Your task to perform on an android device: How much does a 2x4x8 board cost at Lowes? Image 0: 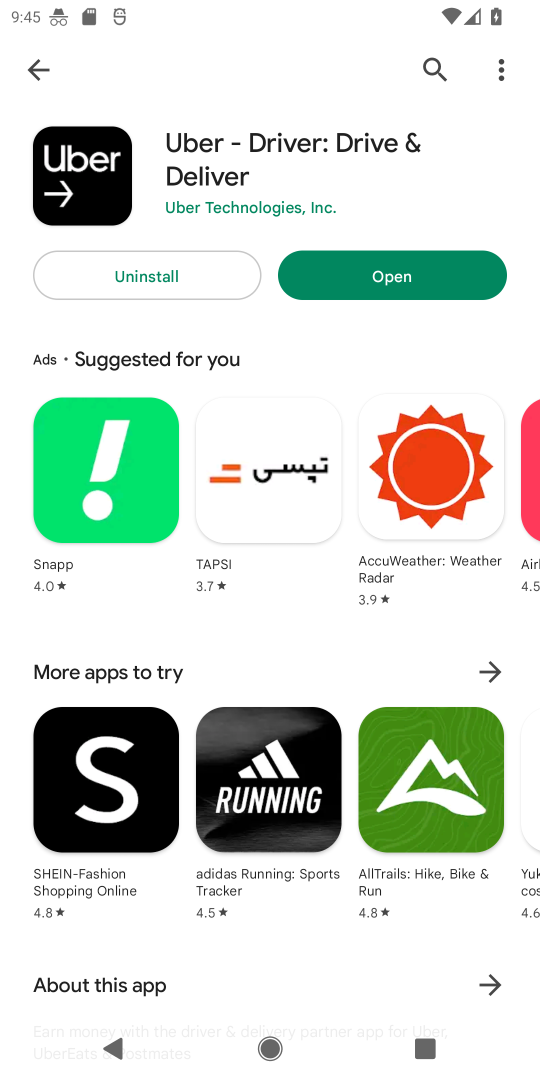
Step 0: press home button
Your task to perform on an android device: How much does a 2x4x8 board cost at Lowes? Image 1: 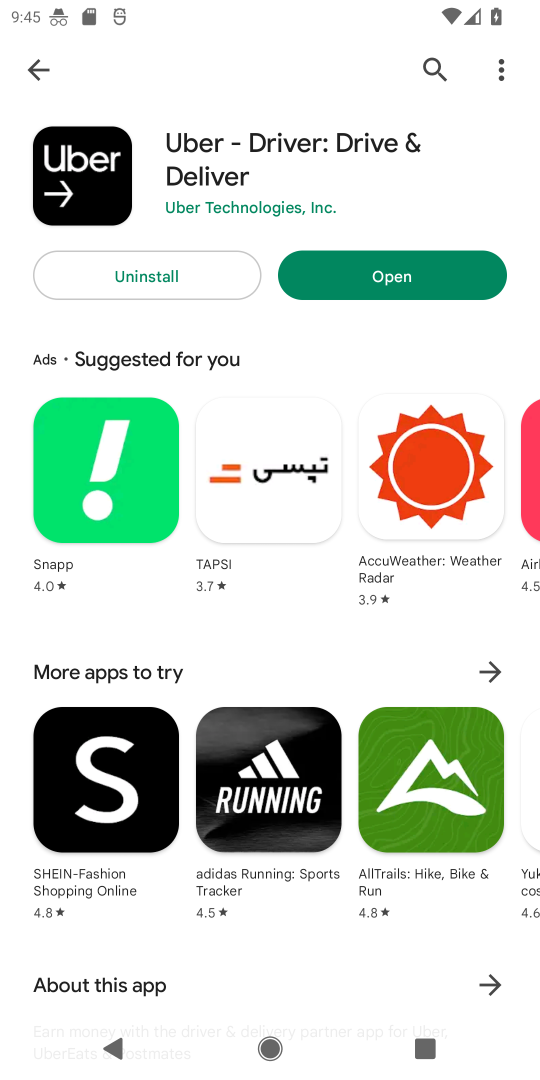
Step 1: press home button
Your task to perform on an android device: How much does a 2x4x8 board cost at Lowes? Image 2: 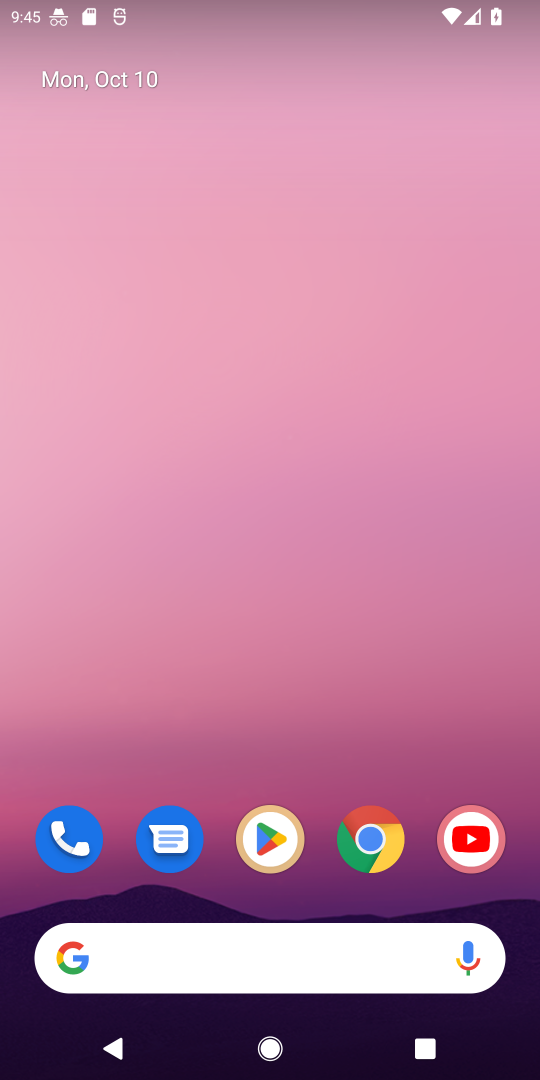
Step 2: drag from (325, 906) to (300, 66)
Your task to perform on an android device: How much does a 2x4x8 board cost at Lowes? Image 3: 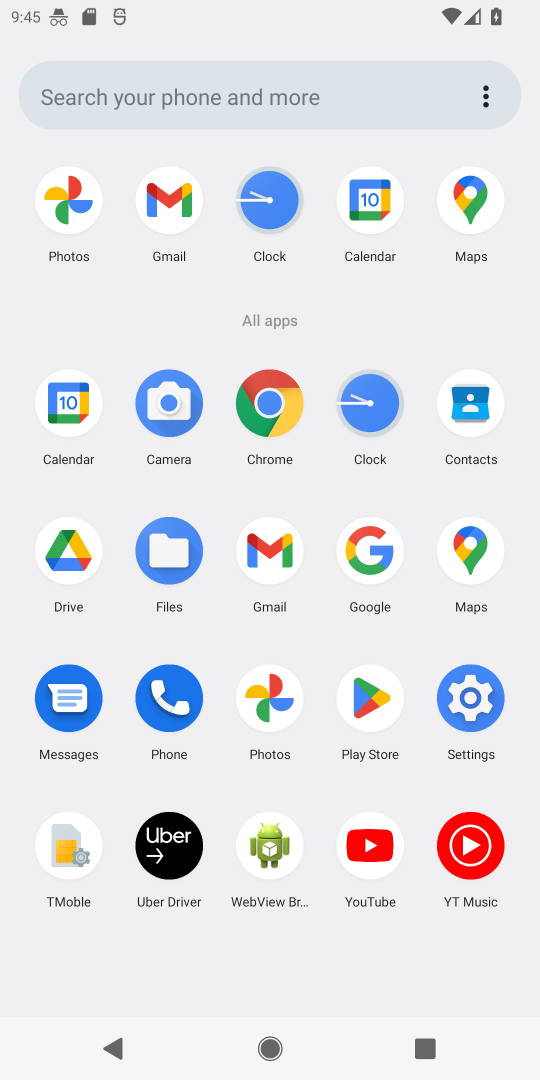
Step 3: click (276, 406)
Your task to perform on an android device: How much does a 2x4x8 board cost at Lowes? Image 4: 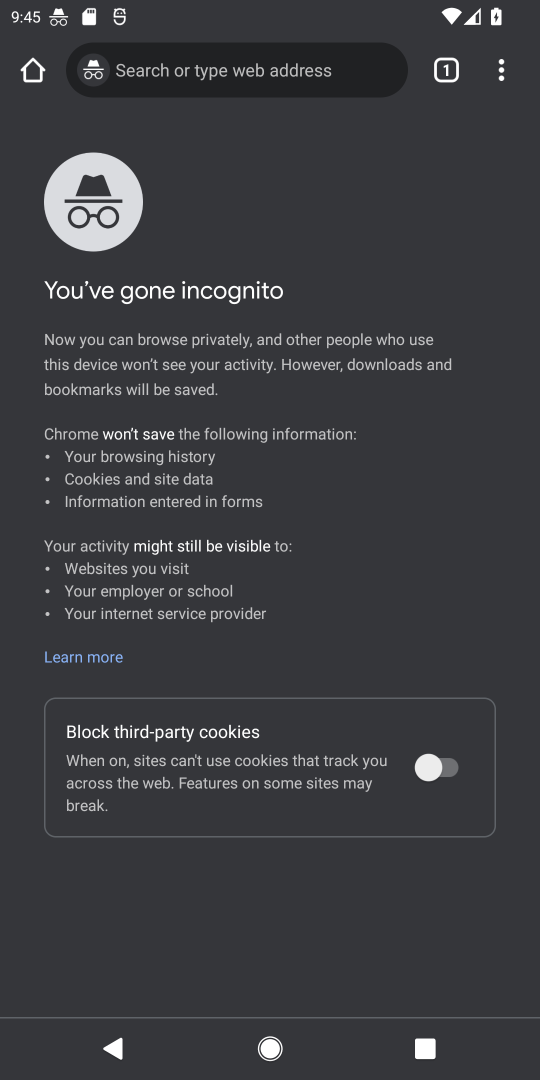
Step 4: click (241, 84)
Your task to perform on an android device: How much does a 2x4x8 board cost at Lowes? Image 5: 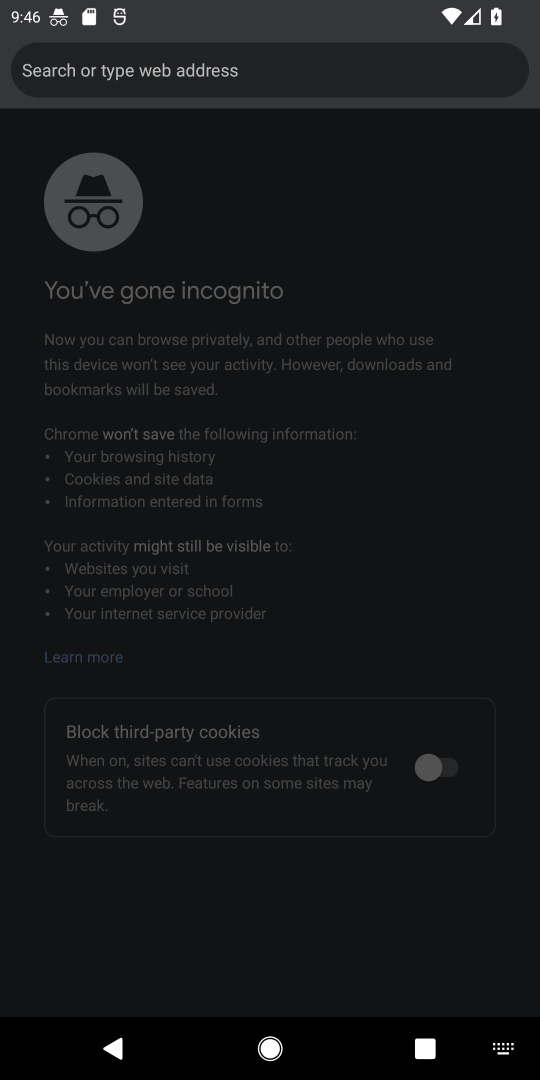
Step 5: type "How much does a 2*4*8 board cost at Lowes?"
Your task to perform on an android device: How much does a 2x4x8 board cost at Lowes? Image 6: 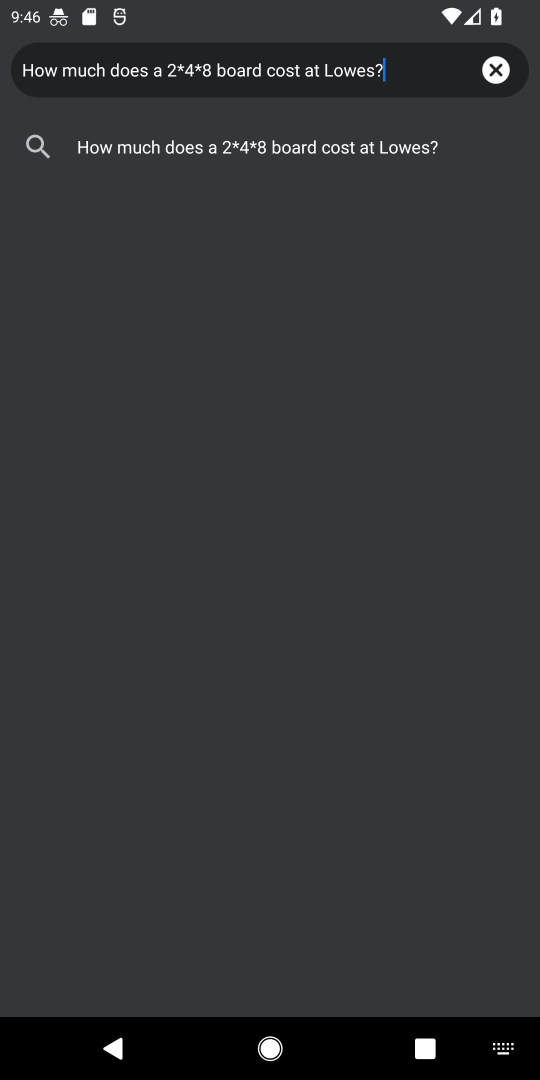
Step 6: press enter
Your task to perform on an android device: How much does a 2x4x8 board cost at Lowes? Image 7: 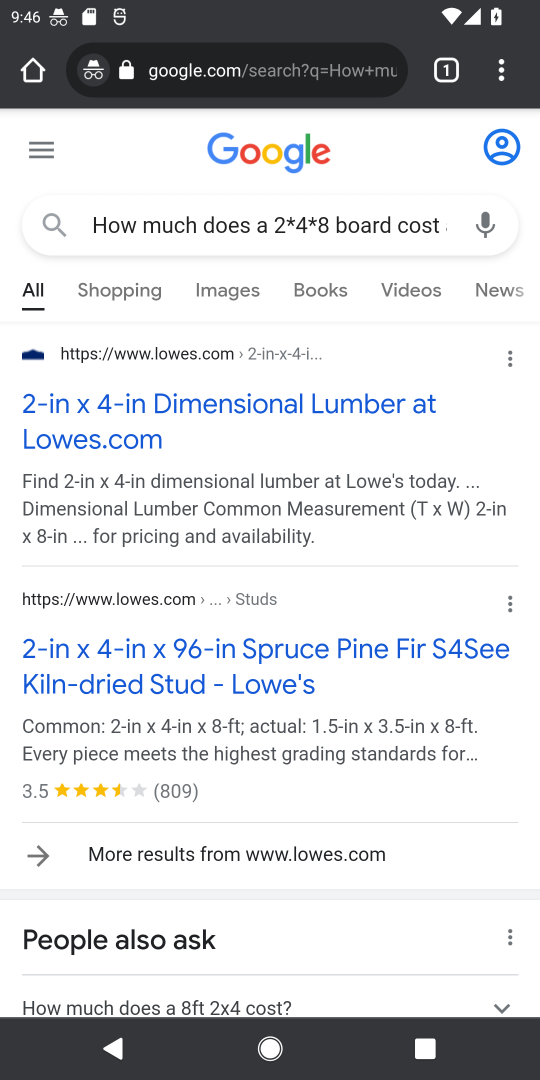
Step 7: drag from (364, 852) to (373, 554)
Your task to perform on an android device: How much does a 2x4x8 board cost at Lowes? Image 8: 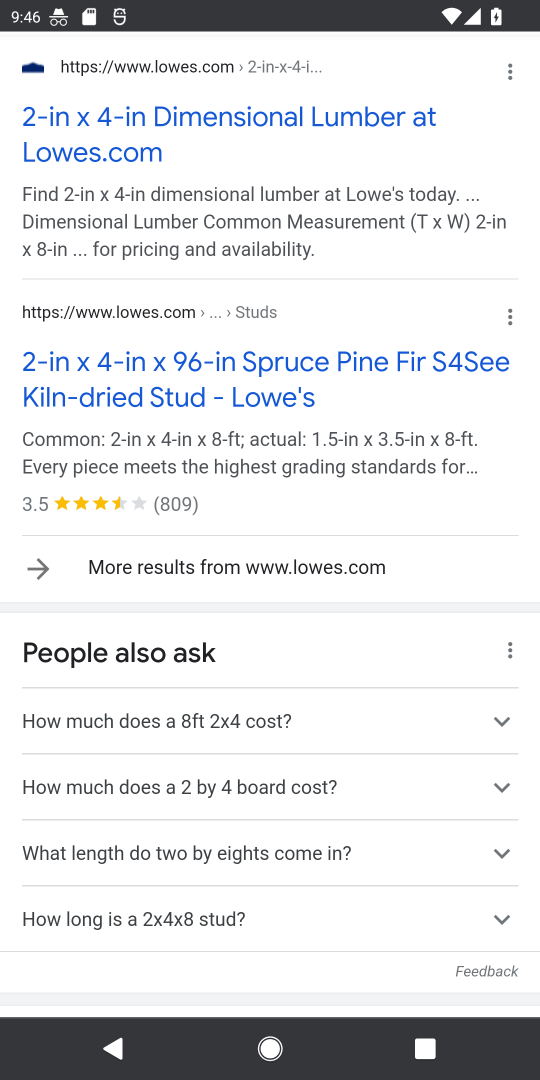
Step 8: click (333, 123)
Your task to perform on an android device: How much does a 2x4x8 board cost at Lowes? Image 9: 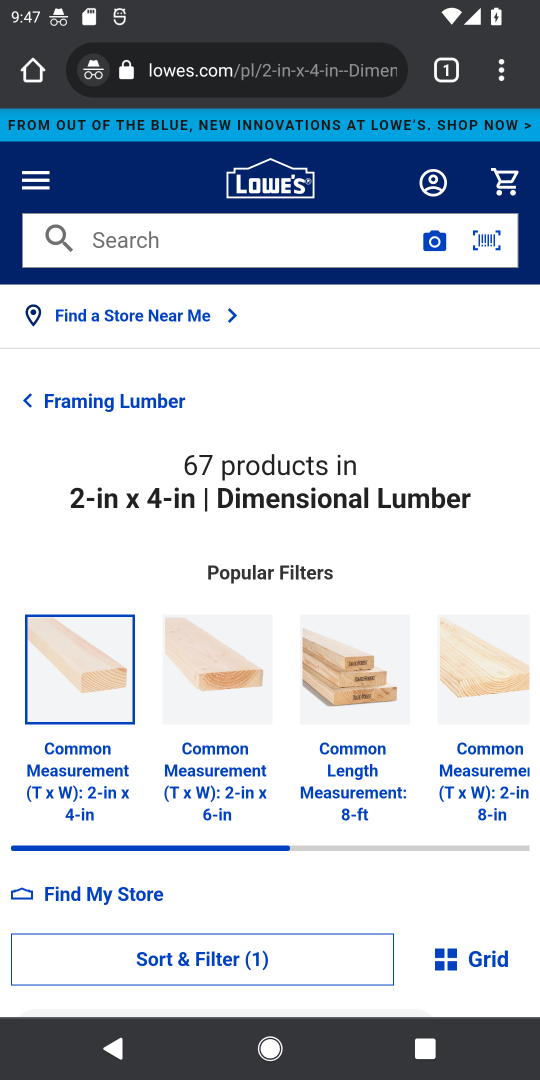
Step 9: task complete